Your task to perform on an android device: Open Google Maps and go to "Timeline" Image 0: 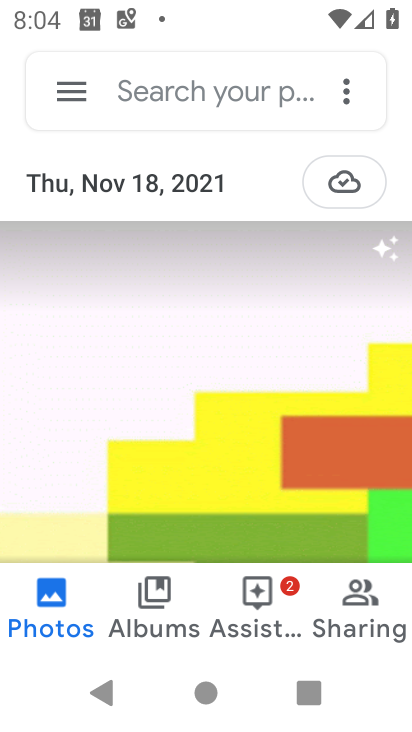
Step 0: press home button
Your task to perform on an android device: Open Google Maps and go to "Timeline" Image 1: 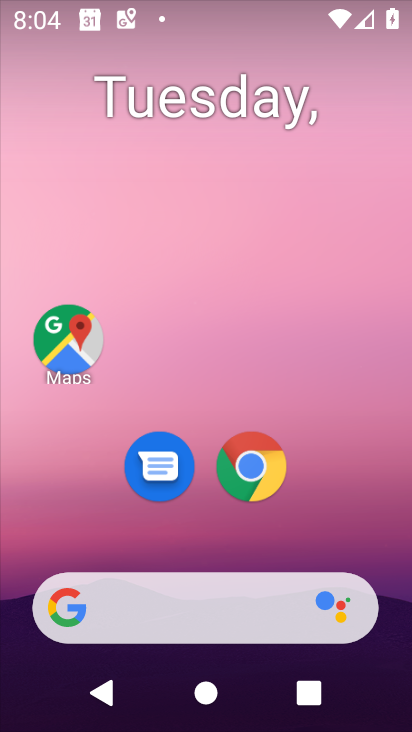
Step 1: click (61, 341)
Your task to perform on an android device: Open Google Maps and go to "Timeline" Image 2: 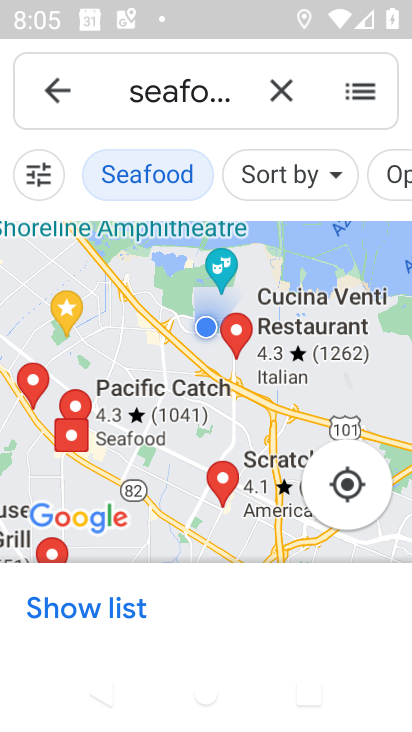
Step 2: click (51, 84)
Your task to perform on an android device: Open Google Maps and go to "Timeline" Image 3: 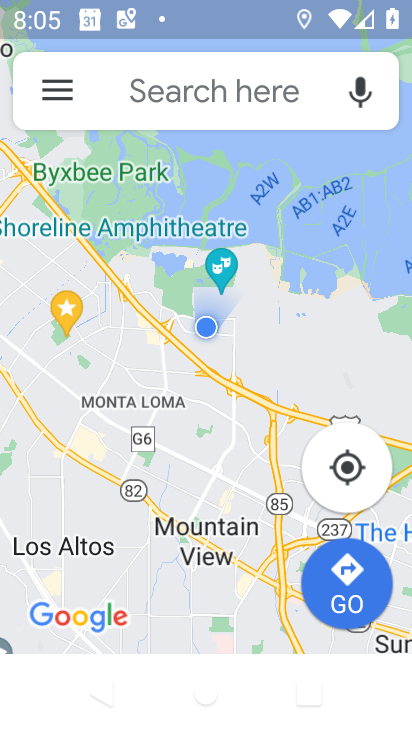
Step 3: click (48, 83)
Your task to perform on an android device: Open Google Maps and go to "Timeline" Image 4: 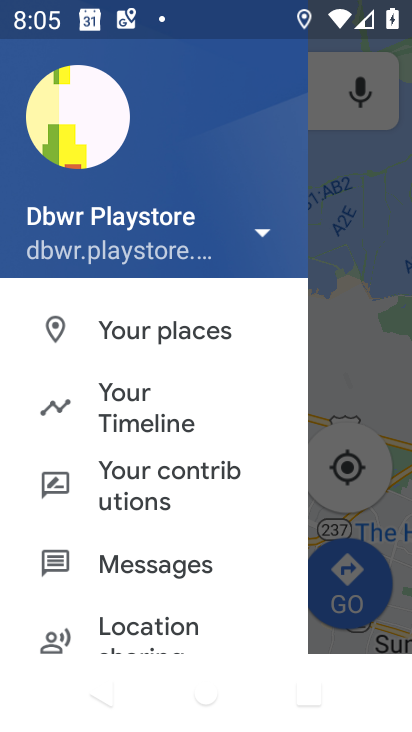
Step 4: click (164, 399)
Your task to perform on an android device: Open Google Maps and go to "Timeline" Image 5: 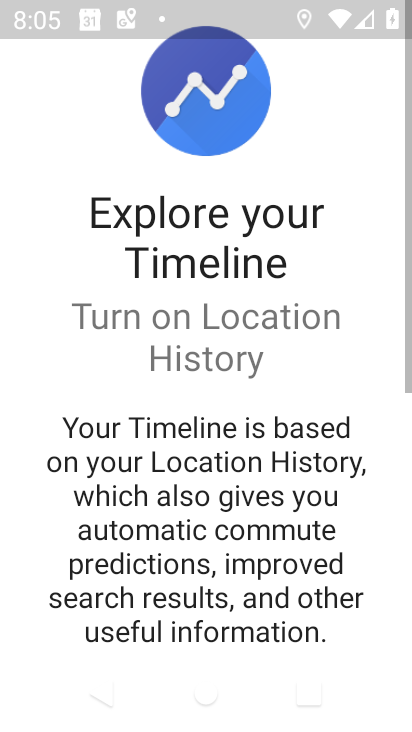
Step 5: task complete